Your task to perform on an android device: turn on notifications settings in the gmail app Image 0: 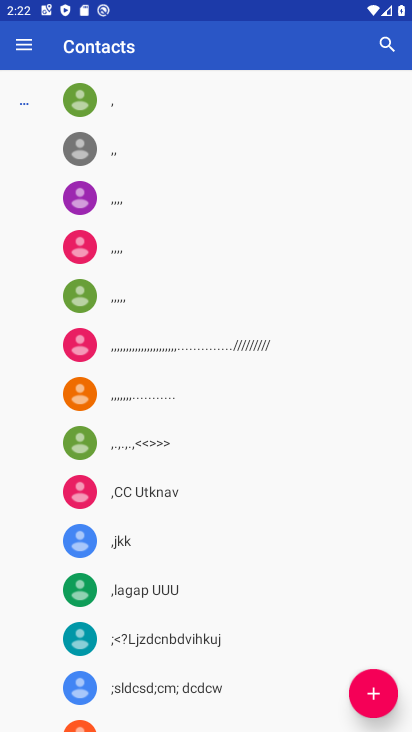
Step 0: press home button
Your task to perform on an android device: turn on notifications settings in the gmail app Image 1: 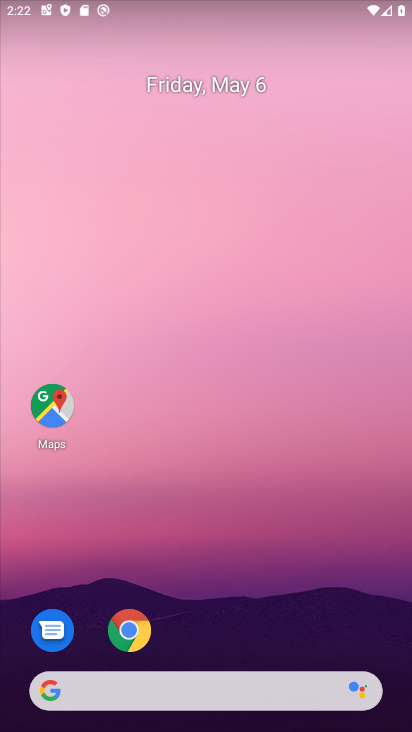
Step 1: drag from (301, 675) to (313, 172)
Your task to perform on an android device: turn on notifications settings in the gmail app Image 2: 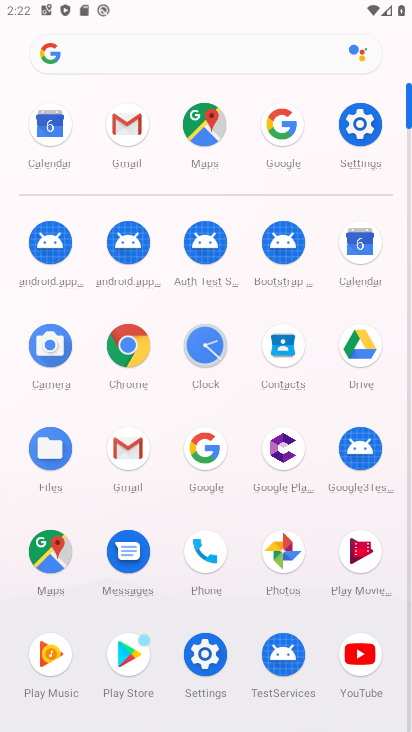
Step 2: click (140, 442)
Your task to perform on an android device: turn on notifications settings in the gmail app Image 3: 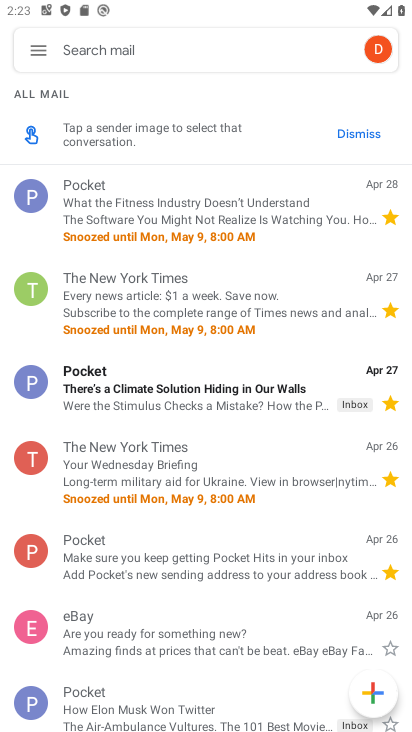
Step 3: click (45, 45)
Your task to perform on an android device: turn on notifications settings in the gmail app Image 4: 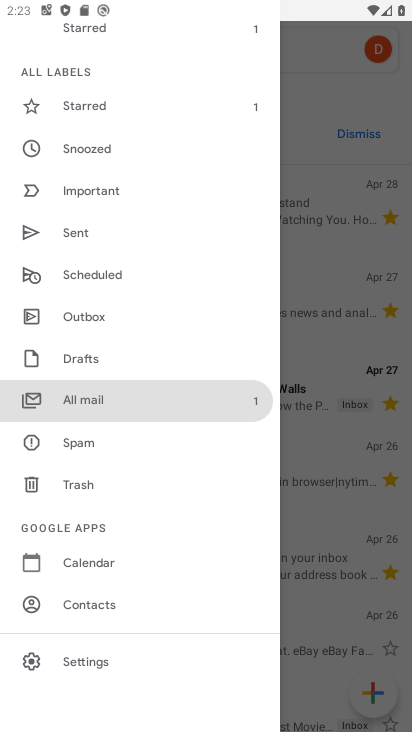
Step 4: drag from (162, 522) to (178, 171)
Your task to perform on an android device: turn on notifications settings in the gmail app Image 5: 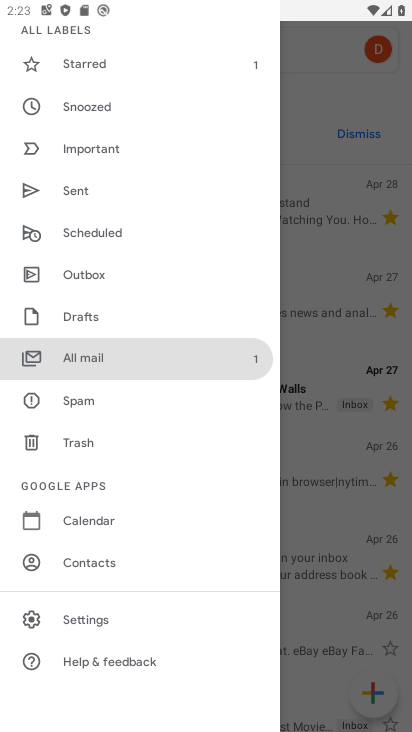
Step 5: click (110, 626)
Your task to perform on an android device: turn on notifications settings in the gmail app Image 6: 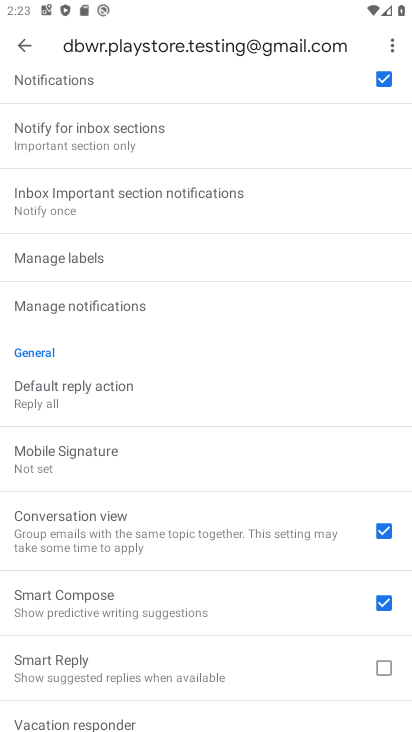
Step 6: click (89, 302)
Your task to perform on an android device: turn on notifications settings in the gmail app Image 7: 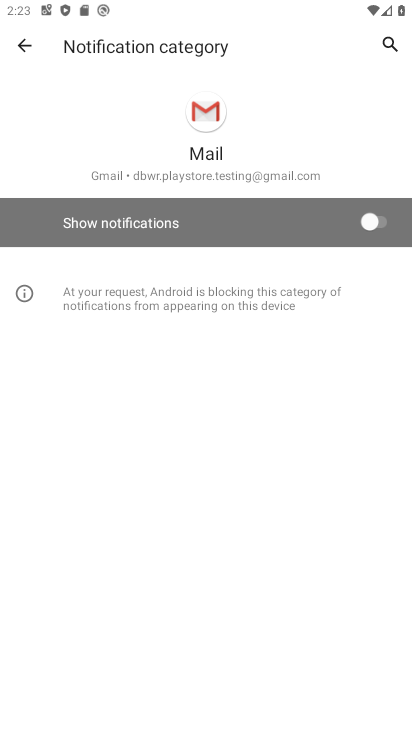
Step 7: click (368, 215)
Your task to perform on an android device: turn on notifications settings in the gmail app Image 8: 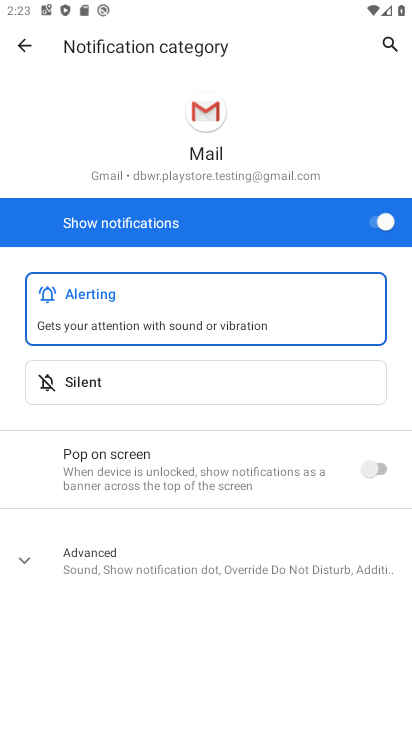
Step 8: task complete